Your task to perform on an android device: change alarm snooze length Image 0: 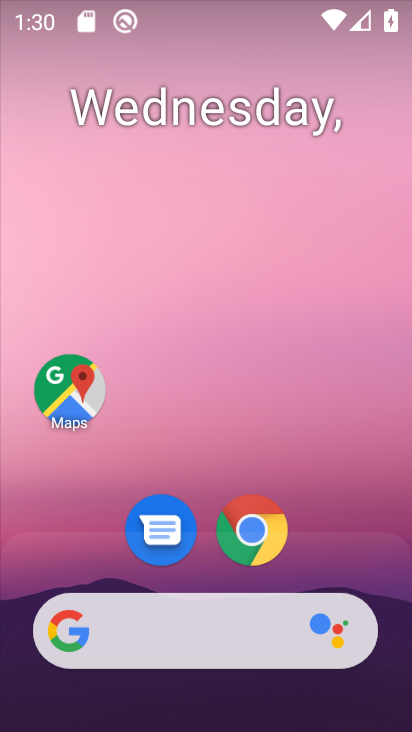
Step 0: drag from (246, 372) to (334, 49)
Your task to perform on an android device: change alarm snooze length Image 1: 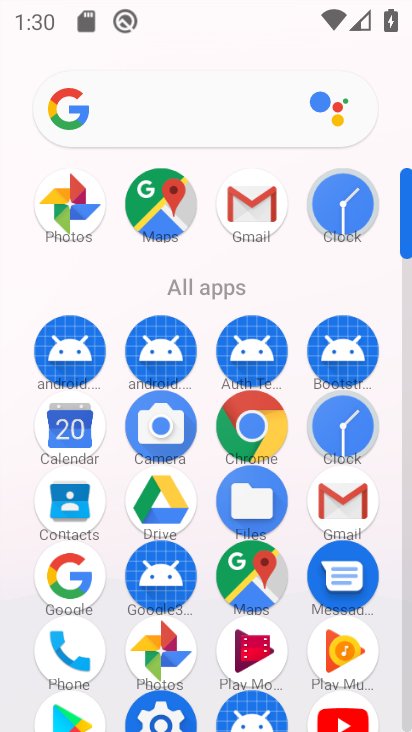
Step 1: drag from (295, 600) to (366, 310)
Your task to perform on an android device: change alarm snooze length Image 2: 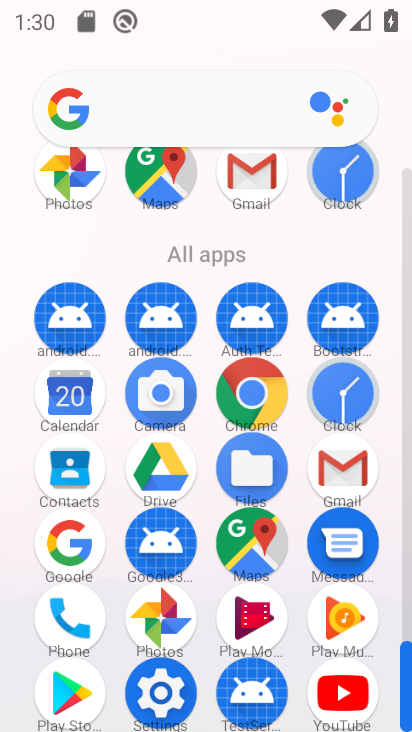
Step 2: click (354, 387)
Your task to perform on an android device: change alarm snooze length Image 3: 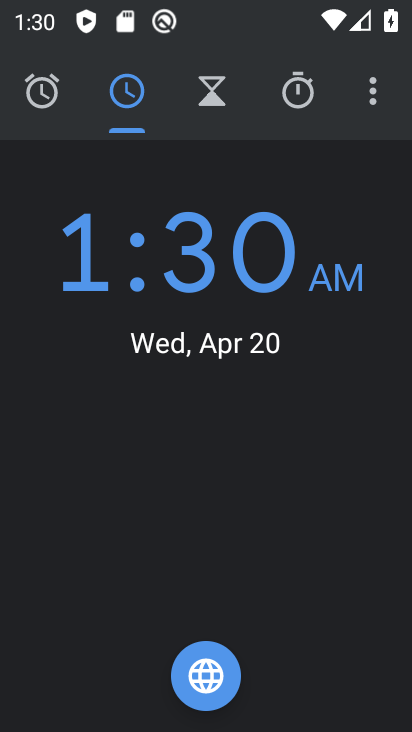
Step 3: click (367, 80)
Your task to perform on an android device: change alarm snooze length Image 4: 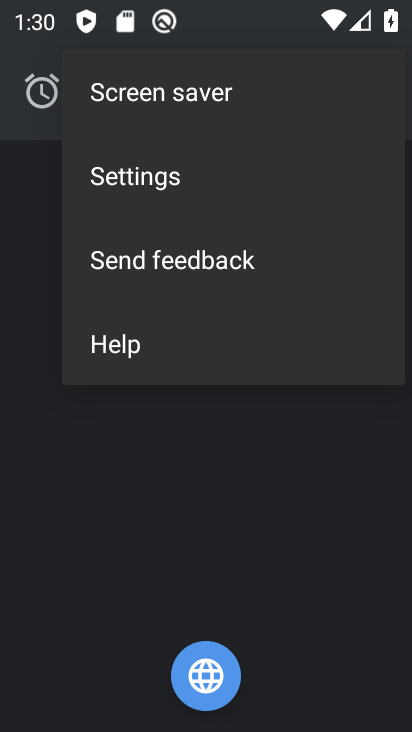
Step 4: click (289, 188)
Your task to perform on an android device: change alarm snooze length Image 5: 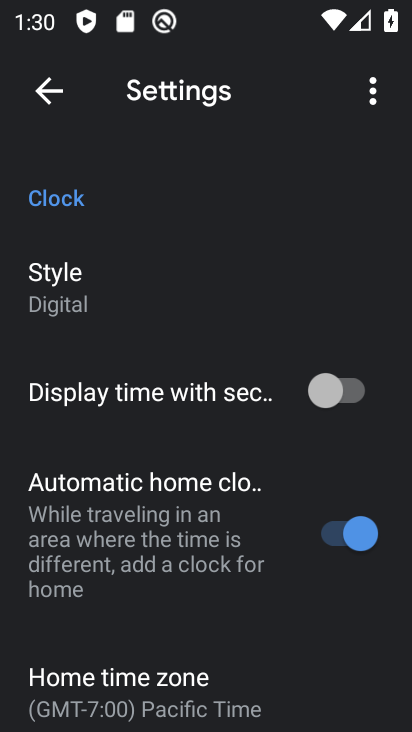
Step 5: drag from (174, 609) to (328, 58)
Your task to perform on an android device: change alarm snooze length Image 6: 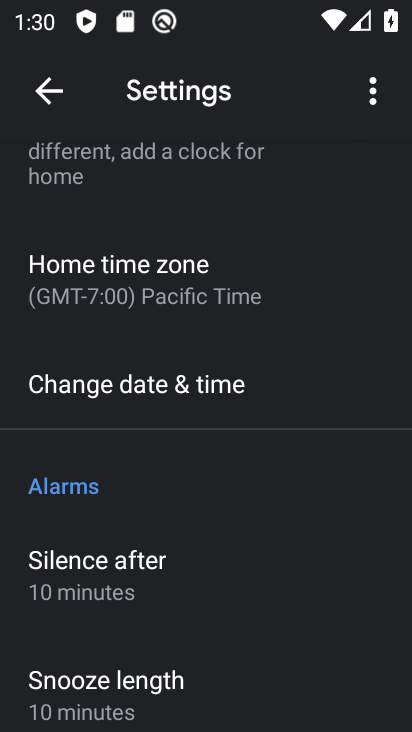
Step 6: drag from (195, 574) to (366, 129)
Your task to perform on an android device: change alarm snooze length Image 7: 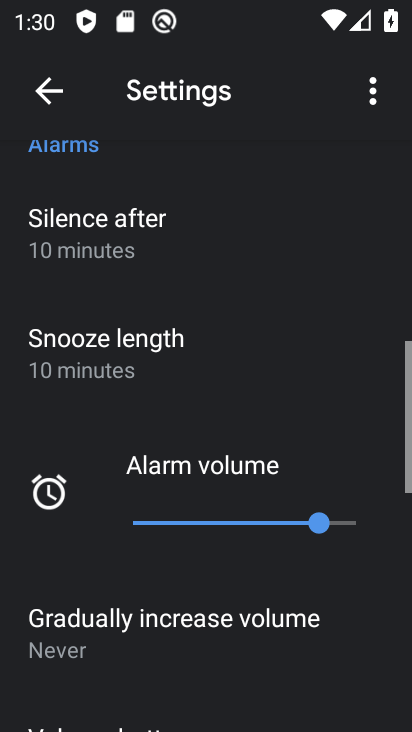
Step 7: drag from (216, 580) to (361, 155)
Your task to perform on an android device: change alarm snooze length Image 8: 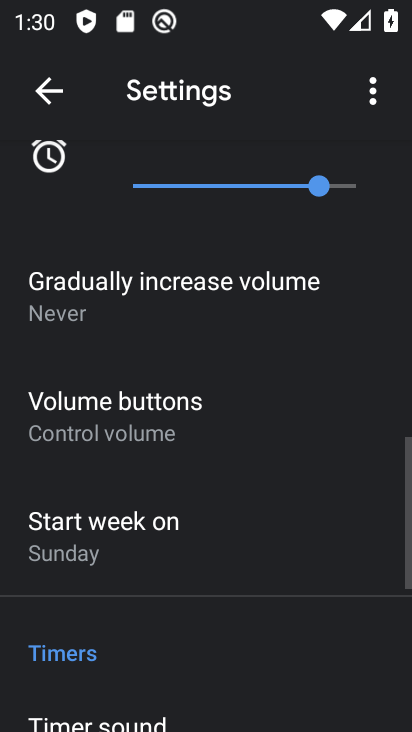
Step 8: drag from (156, 644) to (270, 642)
Your task to perform on an android device: change alarm snooze length Image 9: 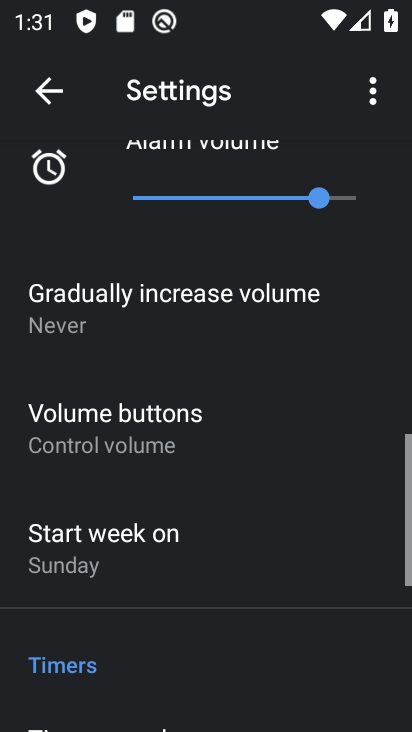
Step 9: drag from (272, 428) to (270, 644)
Your task to perform on an android device: change alarm snooze length Image 10: 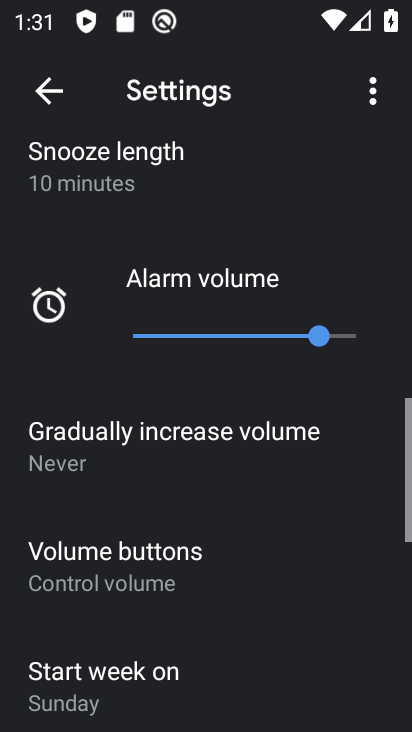
Step 10: drag from (248, 375) to (242, 566)
Your task to perform on an android device: change alarm snooze length Image 11: 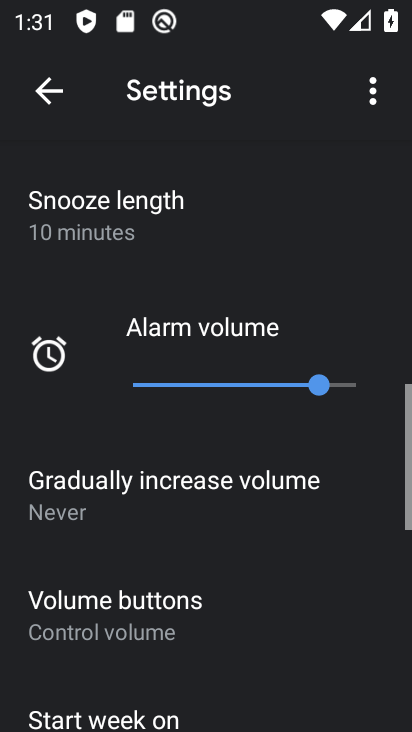
Step 11: click (179, 241)
Your task to perform on an android device: change alarm snooze length Image 12: 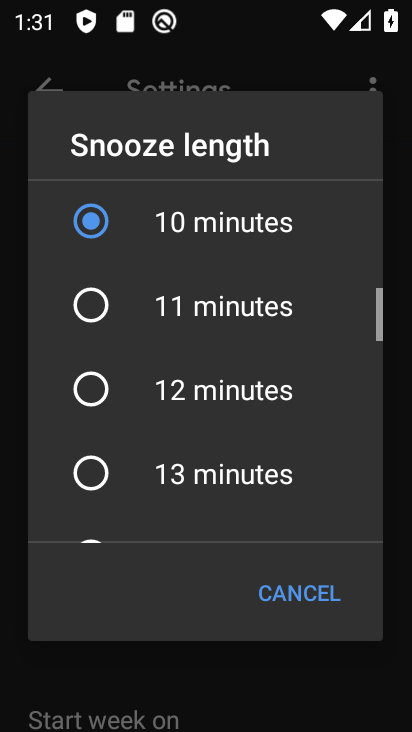
Step 12: drag from (208, 515) to (332, 212)
Your task to perform on an android device: change alarm snooze length Image 13: 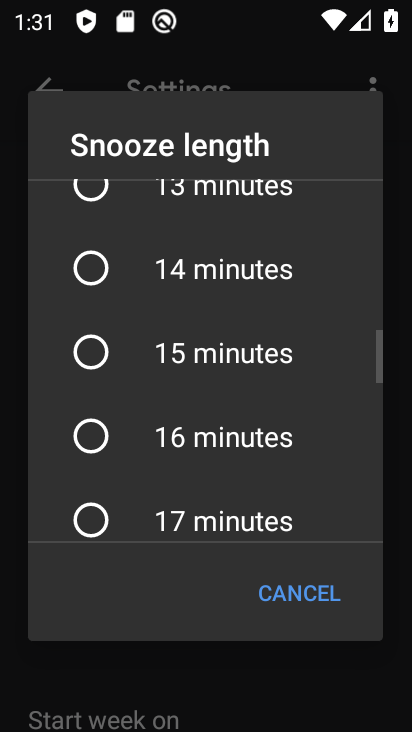
Step 13: click (250, 356)
Your task to perform on an android device: change alarm snooze length Image 14: 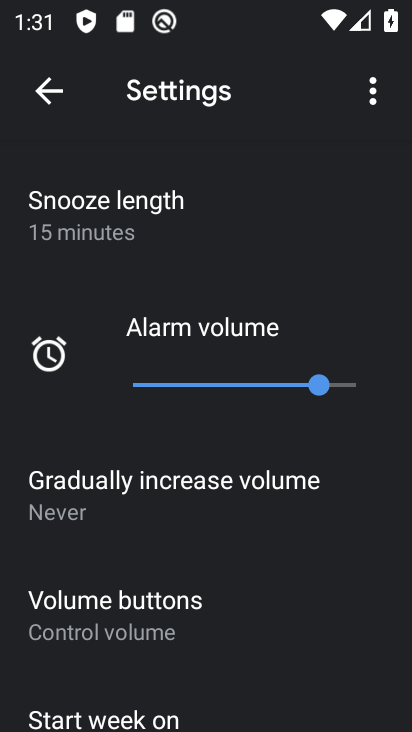
Step 14: task complete